Your task to perform on an android device: Go to Google Image 0: 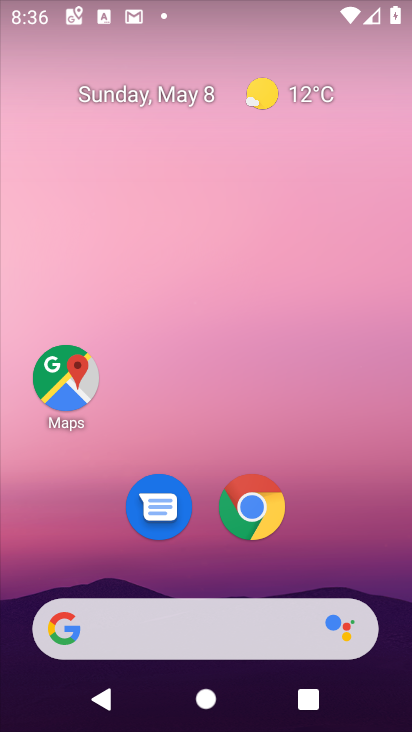
Step 0: drag from (207, 699) to (273, 27)
Your task to perform on an android device: Go to Google Image 1: 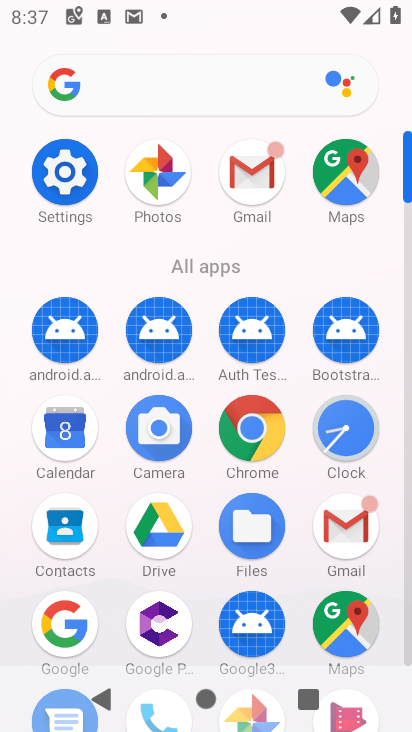
Step 1: click (66, 643)
Your task to perform on an android device: Go to Google Image 2: 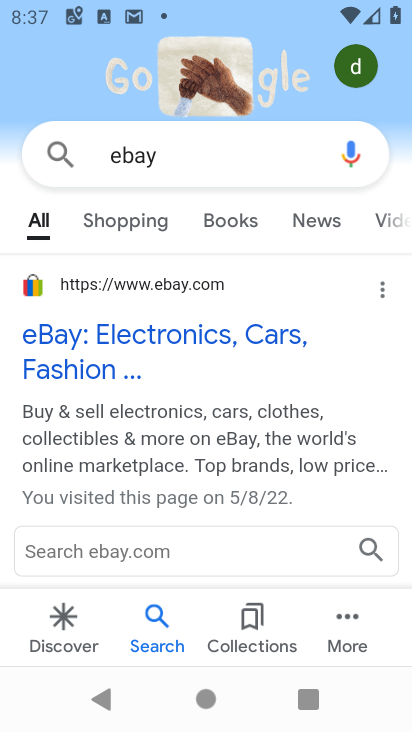
Step 2: task complete